Your task to perform on an android device: allow notifications from all sites in the chrome app Image 0: 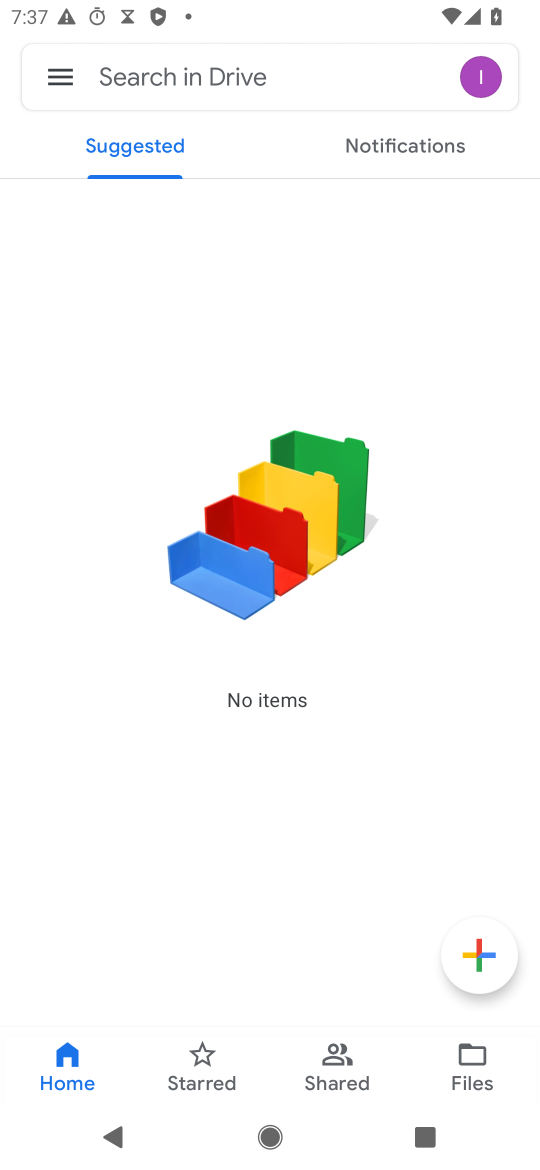
Step 0: press home button
Your task to perform on an android device: allow notifications from all sites in the chrome app Image 1: 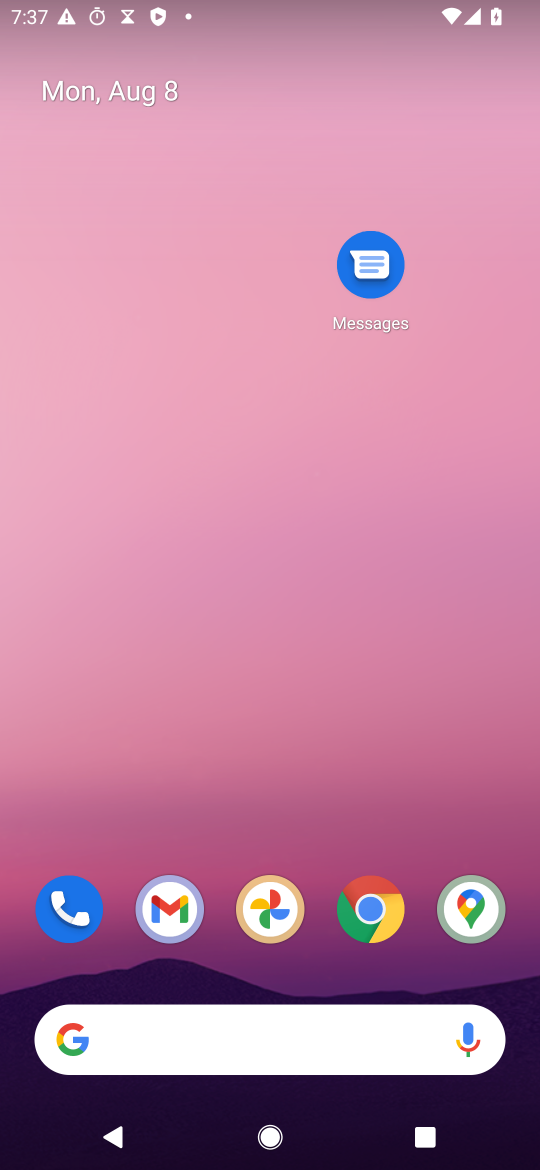
Step 1: click (366, 917)
Your task to perform on an android device: allow notifications from all sites in the chrome app Image 2: 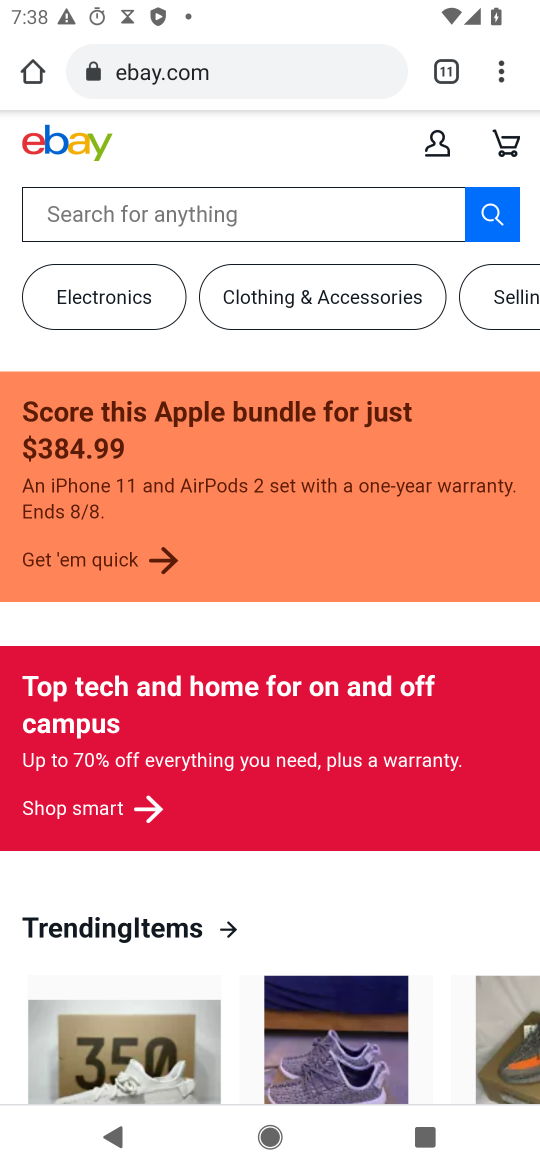
Step 2: drag from (497, 75) to (371, 990)
Your task to perform on an android device: allow notifications from all sites in the chrome app Image 3: 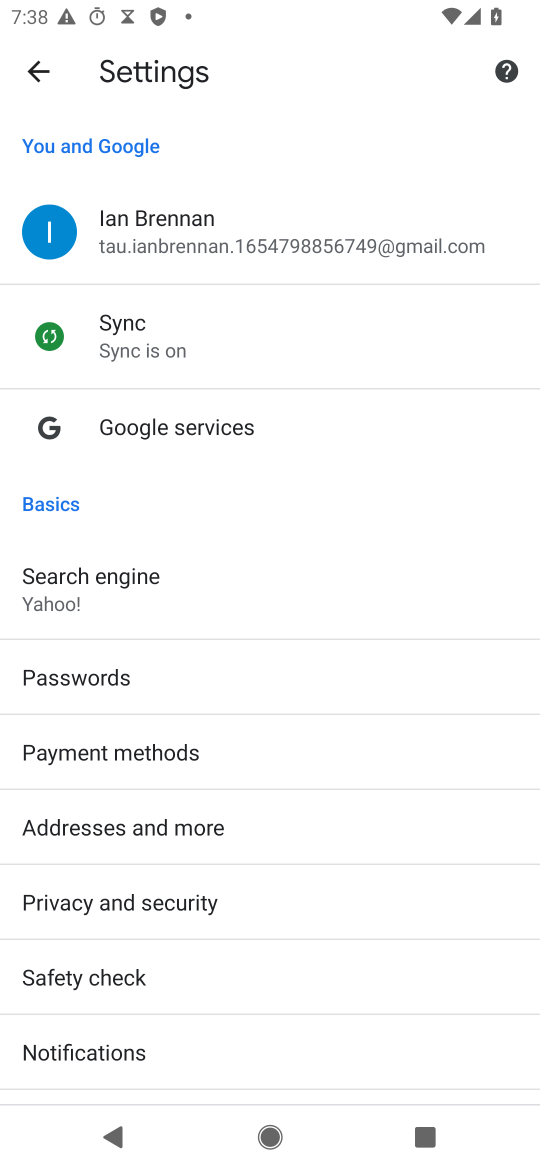
Step 3: drag from (272, 975) to (395, 471)
Your task to perform on an android device: allow notifications from all sites in the chrome app Image 4: 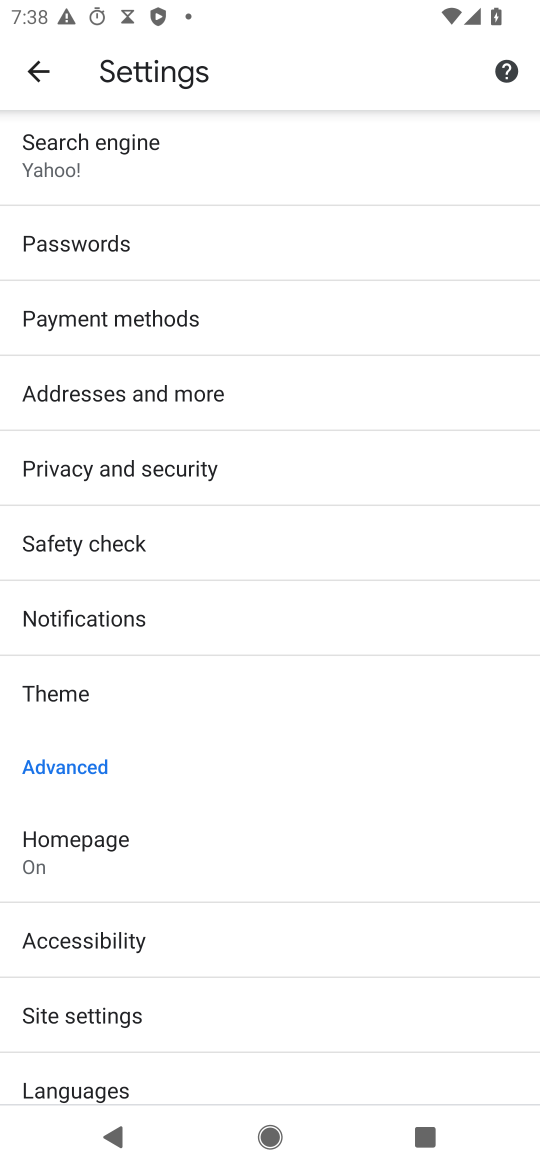
Step 4: drag from (241, 1009) to (430, 282)
Your task to perform on an android device: allow notifications from all sites in the chrome app Image 5: 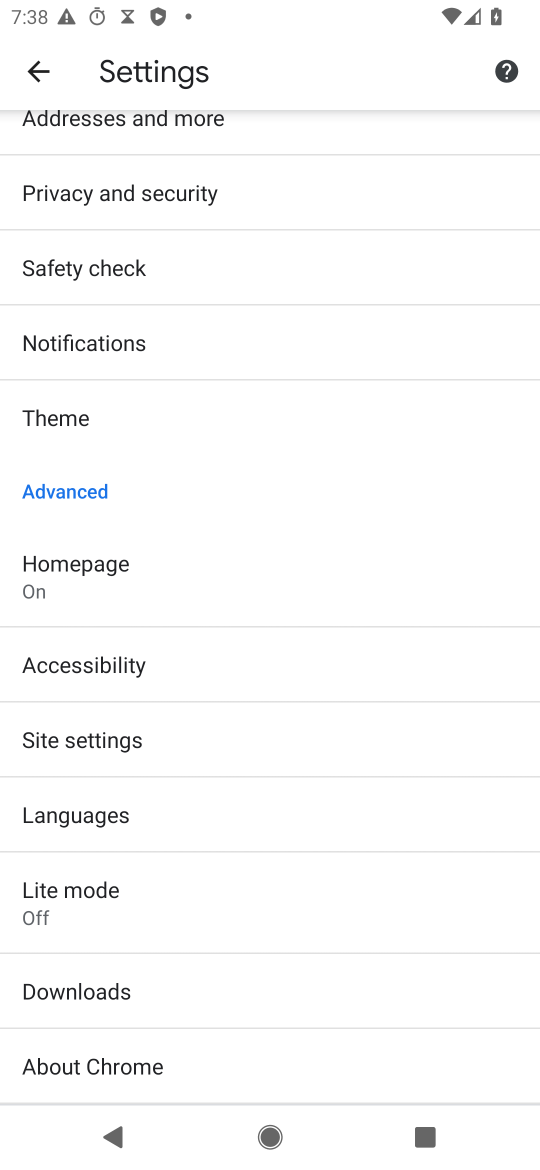
Step 5: click (84, 749)
Your task to perform on an android device: allow notifications from all sites in the chrome app Image 6: 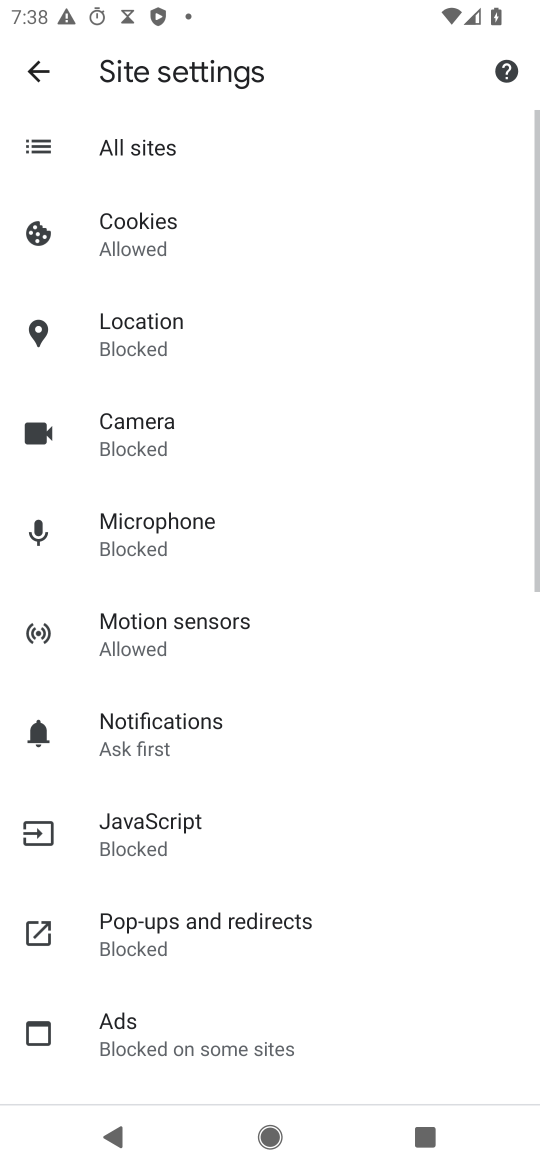
Step 6: click (179, 726)
Your task to perform on an android device: allow notifications from all sites in the chrome app Image 7: 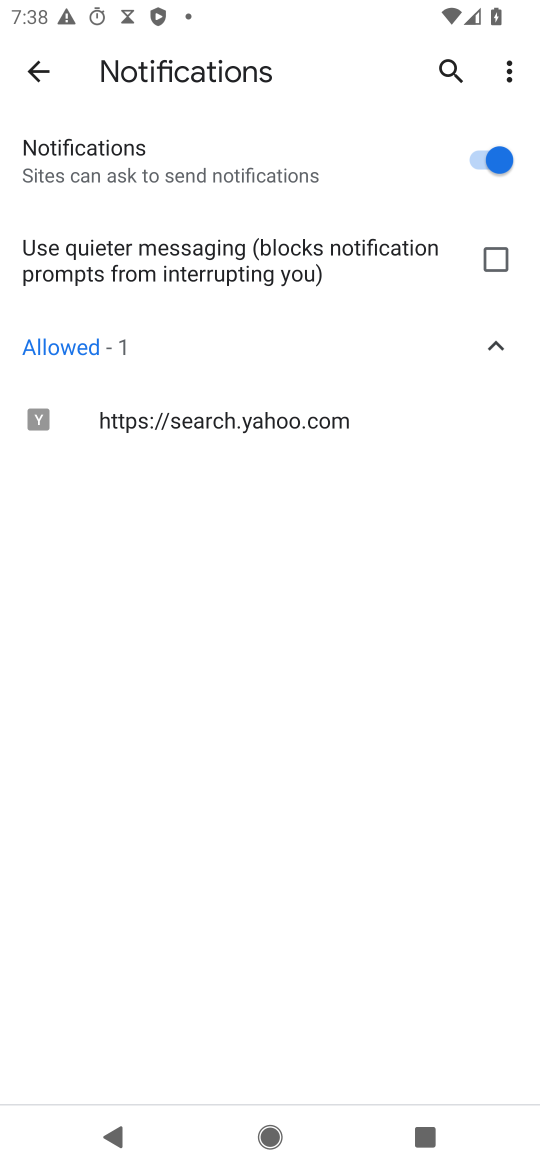
Step 7: task complete